Your task to perform on an android device: turn on showing notifications on the lock screen Image 0: 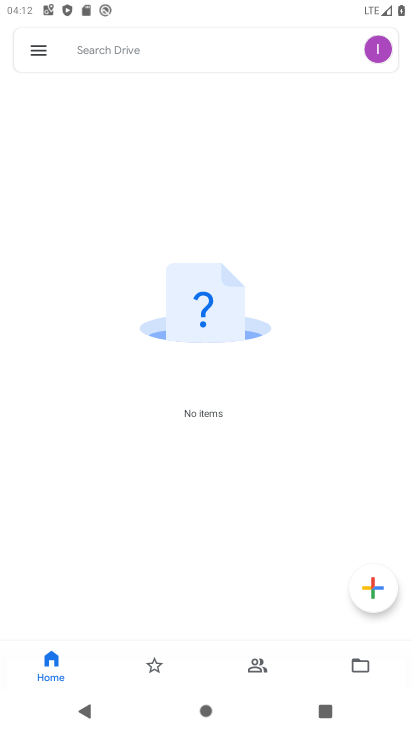
Step 0: press home button
Your task to perform on an android device: turn on showing notifications on the lock screen Image 1: 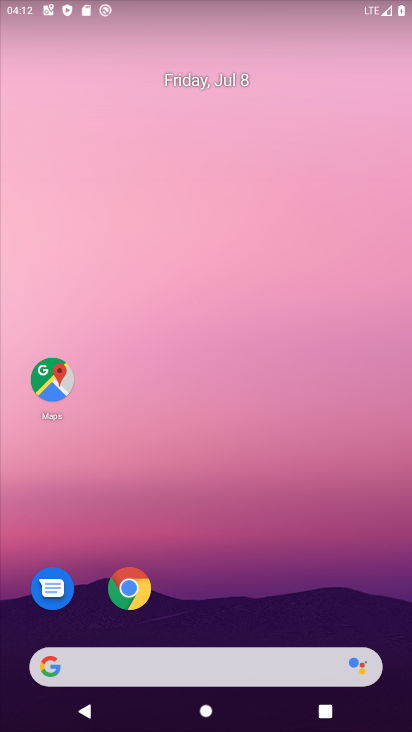
Step 1: drag from (166, 600) to (201, 255)
Your task to perform on an android device: turn on showing notifications on the lock screen Image 2: 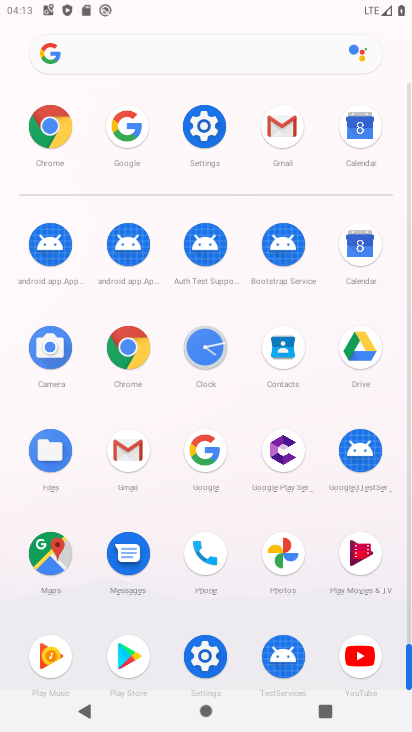
Step 2: click (209, 121)
Your task to perform on an android device: turn on showing notifications on the lock screen Image 3: 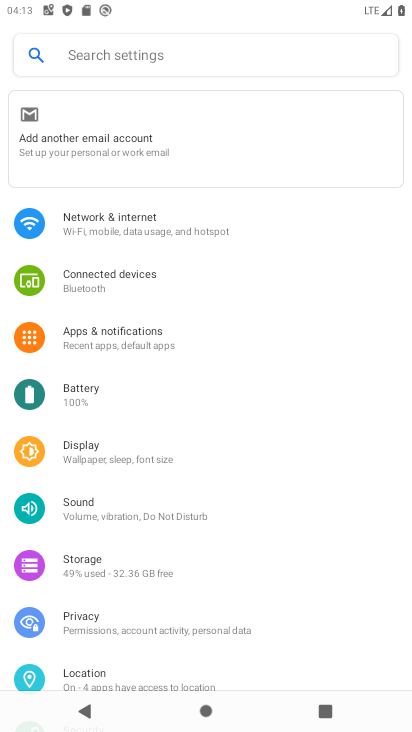
Step 3: click (101, 348)
Your task to perform on an android device: turn on showing notifications on the lock screen Image 4: 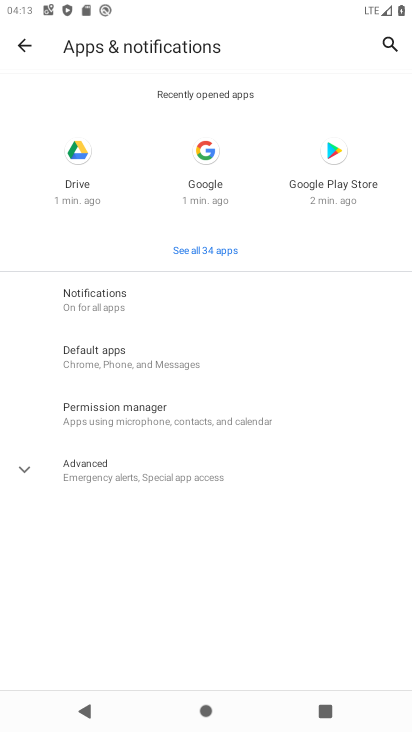
Step 4: click (93, 301)
Your task to perform on an android device: turn on showing notifications on the lock screen Image 5: 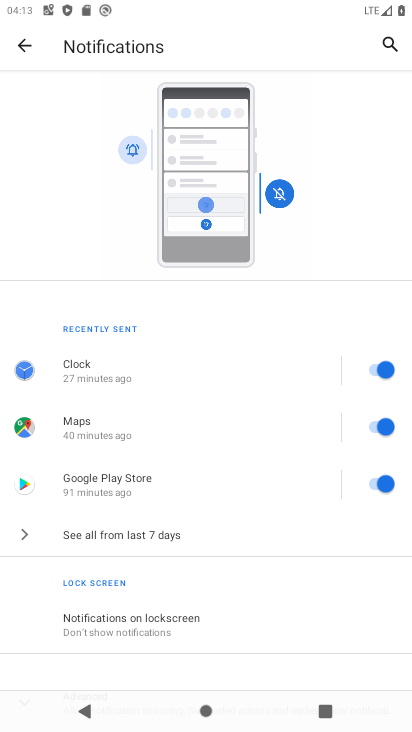
Step 5: click (133, 626)
Your task to perform on an android device: turn on showing notifications on the lock screen Image 6: 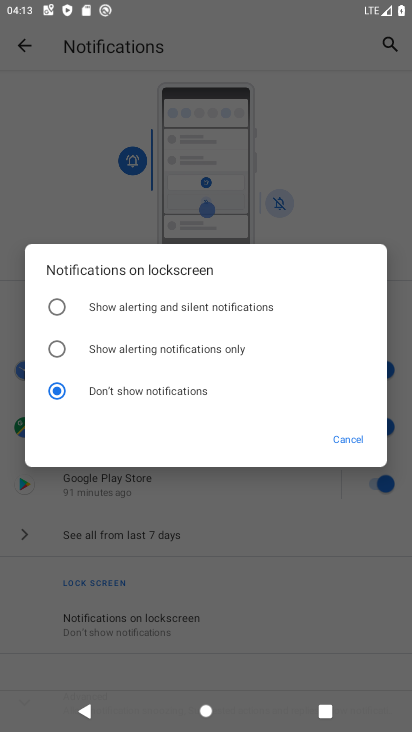
Step 6: click (55, 312)
Your task to perform on an android device: turn on showing notifications on the lock screen Image 7: 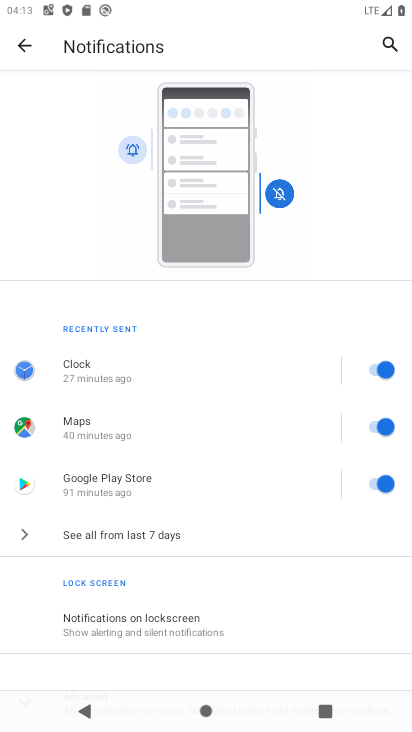
Step 7: task complete